Your task to perform on an android device: Go to internet settings Image 0: 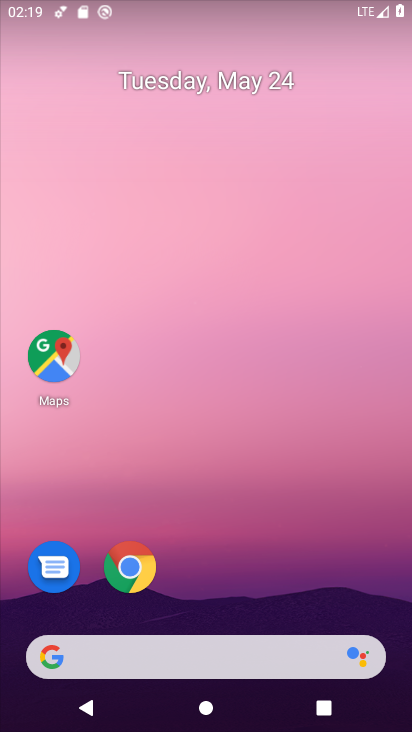
Step 0: drag from (207, 588) to (226, 339)
Your task to perform on an android device: Go to internet settings Image 1: 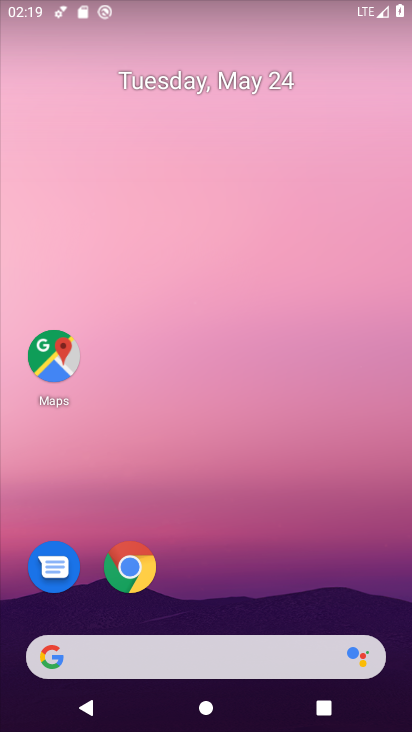
Step 1: drag from (159, 606) to (2, 24)
Your task to perform on an android device: Go to internet settings Image 2: 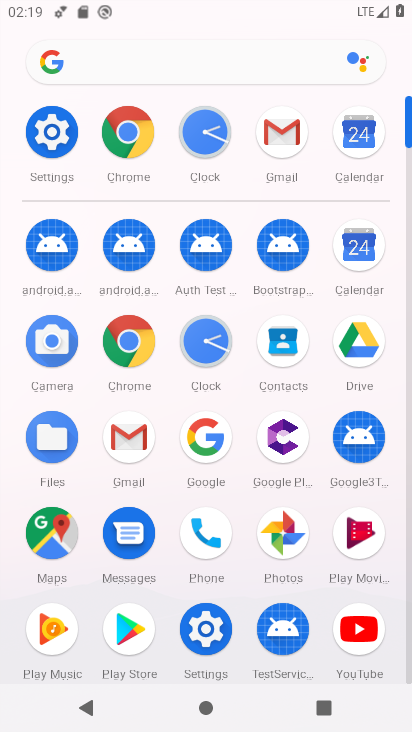
Step 2: click (202, 644)
Your task to perform on an android device: Go to internet settings Image 3: 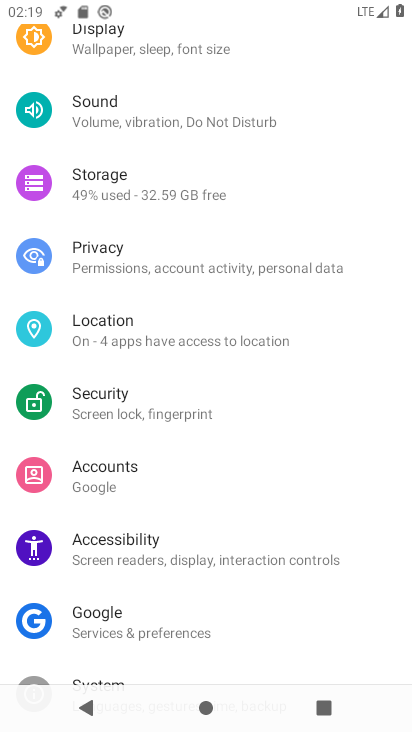
Step 3: drag from (204, 140) to (204, 444)
Your task to perform on an android device: Go to internet settings Image 4: 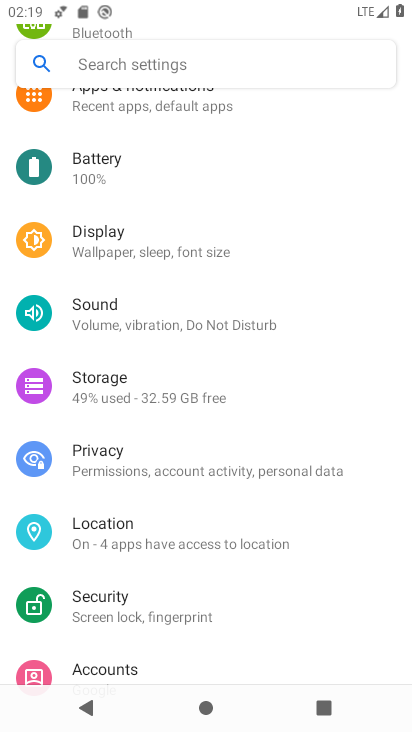
Step 4: drag from (126, 169) to (137, 370)
Your task to perform on an android device: Go to internet settings Image 5: 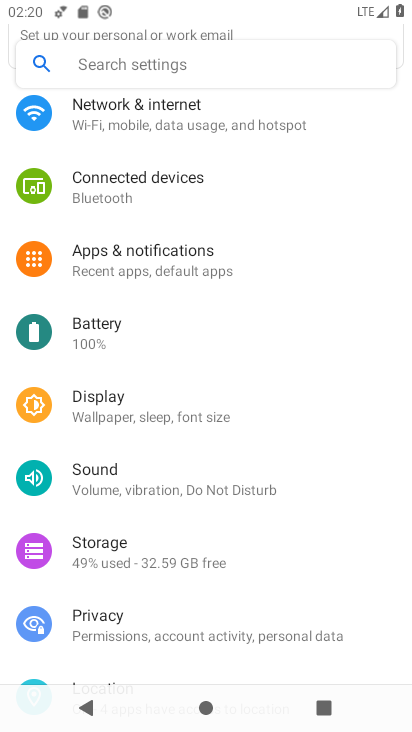
Step 5: click (192, 128)
Your task to perform on an android device: Go to internet settings Image 6: 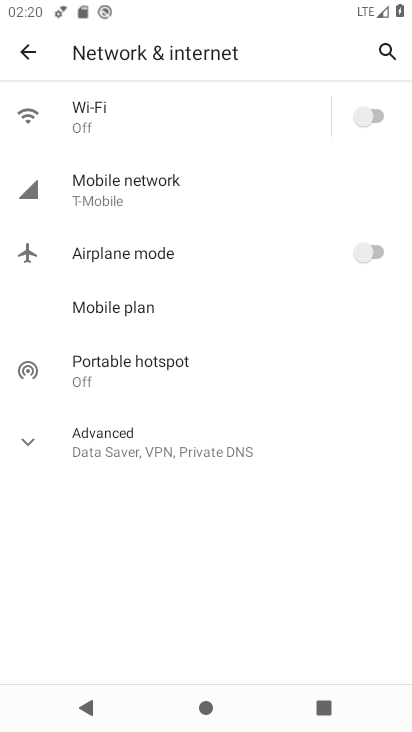
Step 6: task complete